Your task to perform on an android device: Search for the best gaming mouse on Best Buy. Image 0: 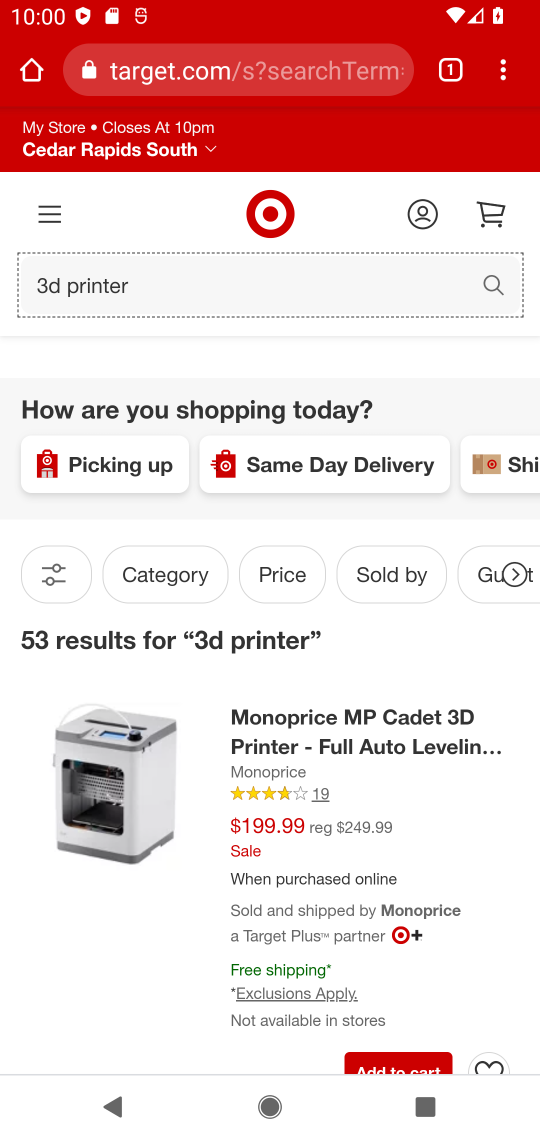
Step 0: press home button
Your task to perform on an android device: Search for the best gaming mouse on Best Buy. Image 1: 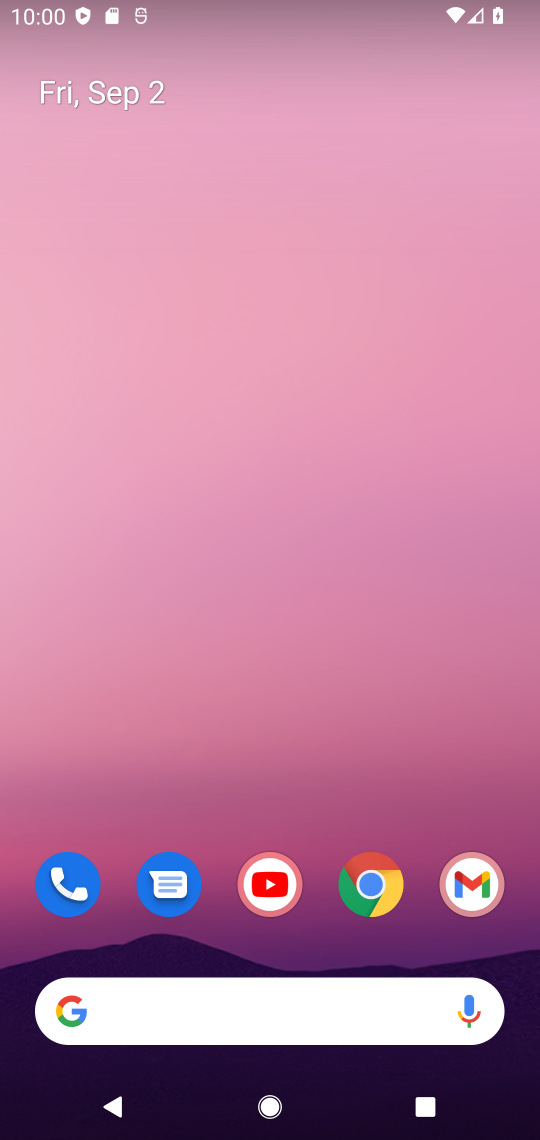
Step 1: click (455, 256)
Your task to perform on an android device: Search for the best gaming mouse on Best Buy. Image 2: 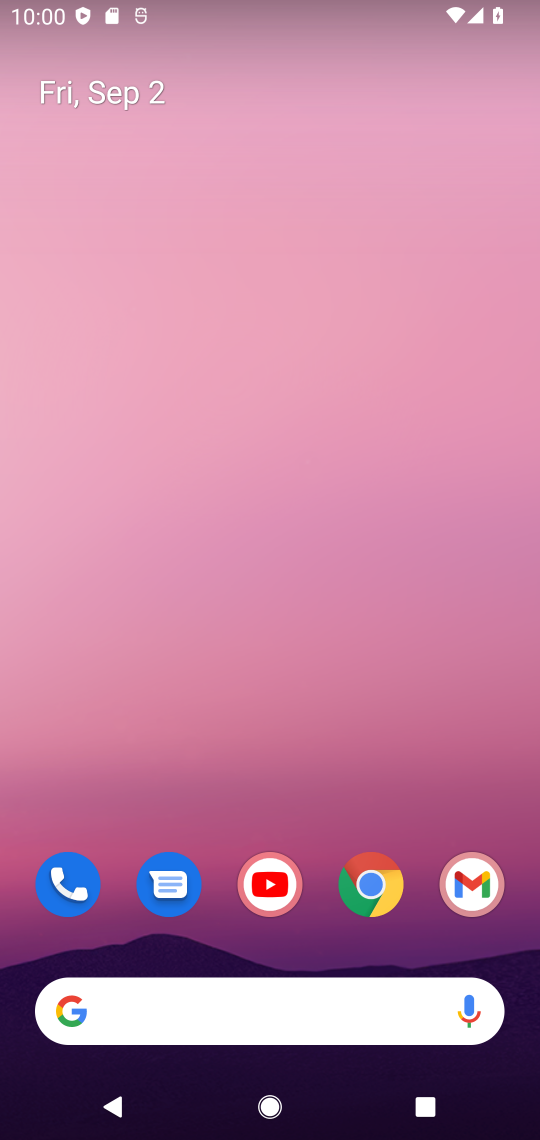
Step 2: drag from (323, 923) to (330, 192)
Your task to perform on an android device: Search for the best gaming mouse on Best Buy. Image 3: 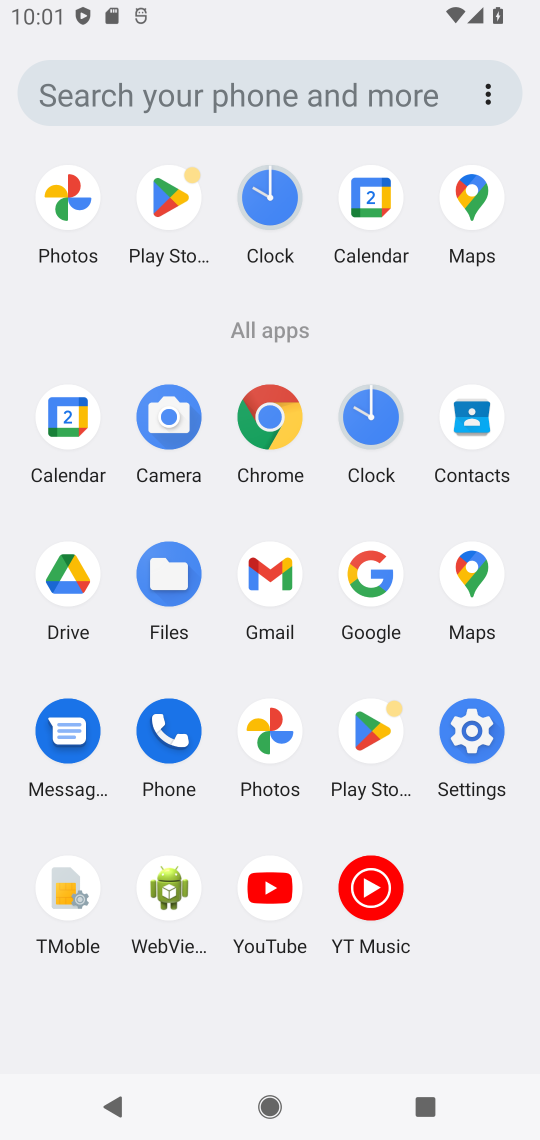
Step 3: drag from (370, 654) to (373, 440)
Your task to perform on an android device: Search for the best gaming mouse on Best Buy. Image 4: 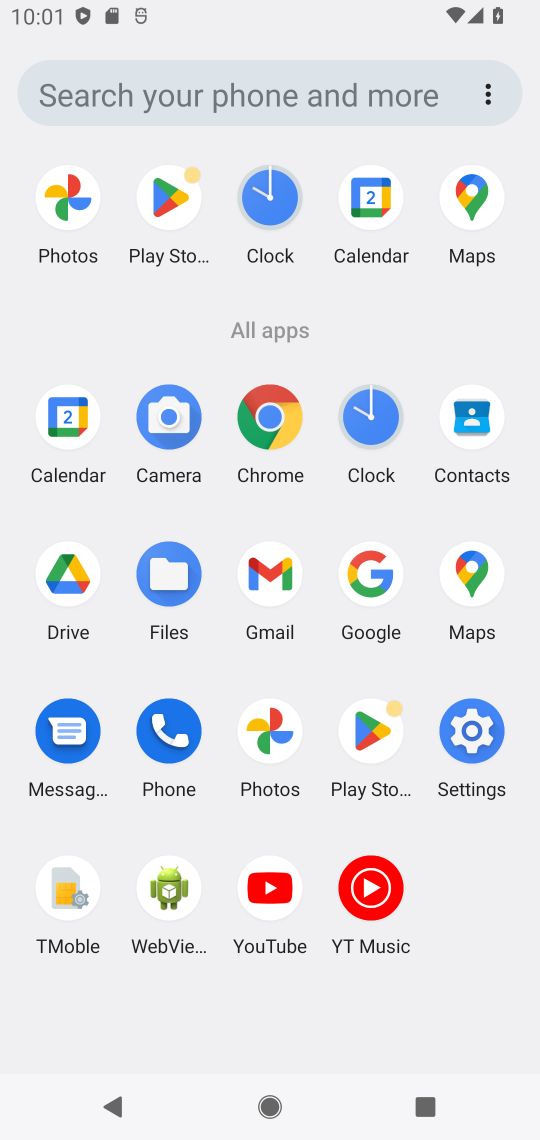
Step 4: click (285, 440)
Your task to perform on an android device: Search for the best gaming mouse on Best Buy. Image 5: 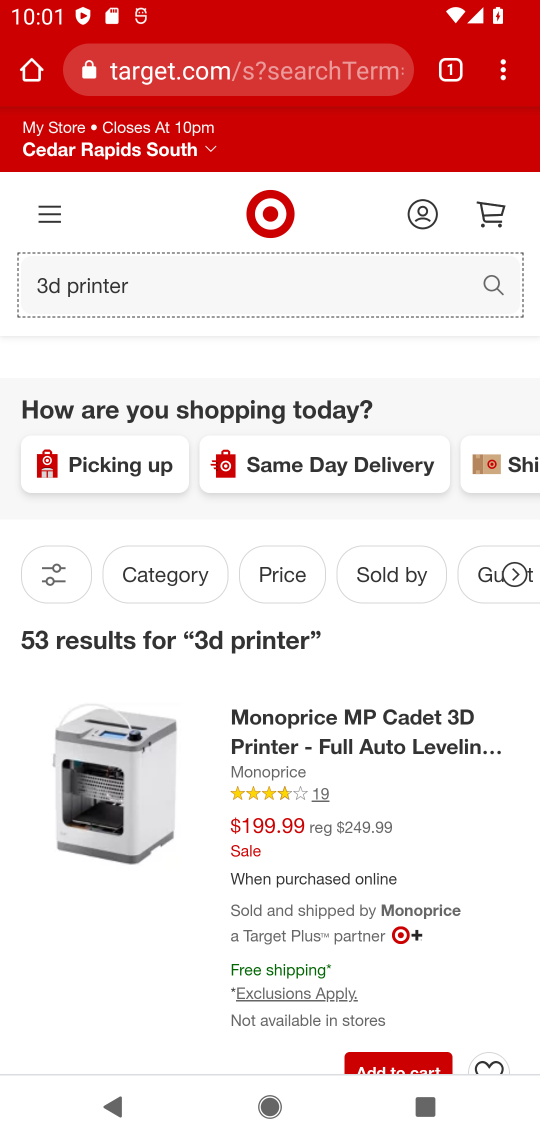
Step 5: click (323, 66)
Your task to perform on an android device: Search for the best gaming mouse on Best Buy. Image 6: 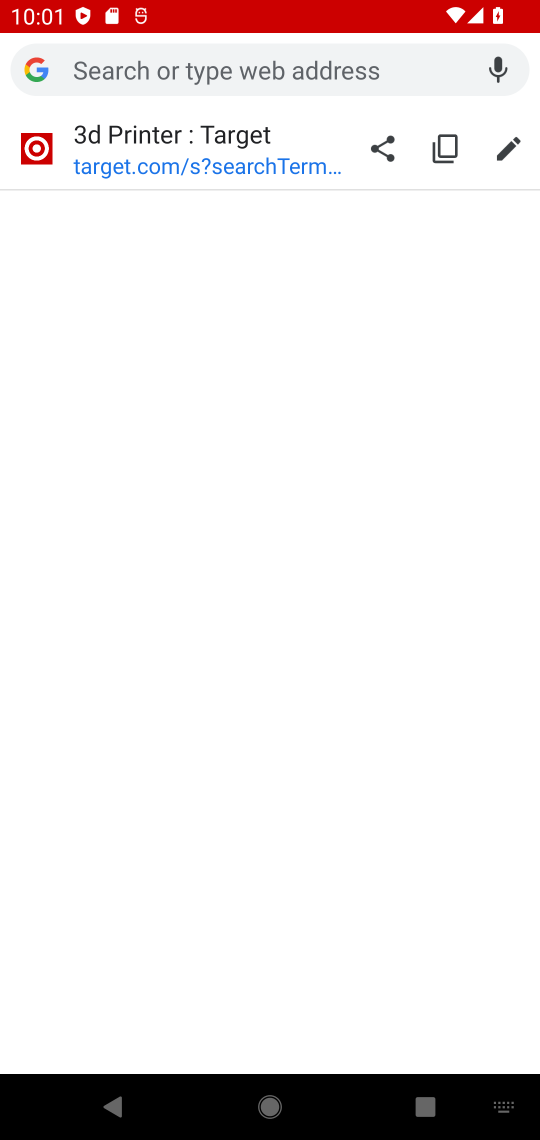
Step 6: type "best buy"
Your task to perform on an android device: Search for the best gaming mouse on Best Buy. Image 7: 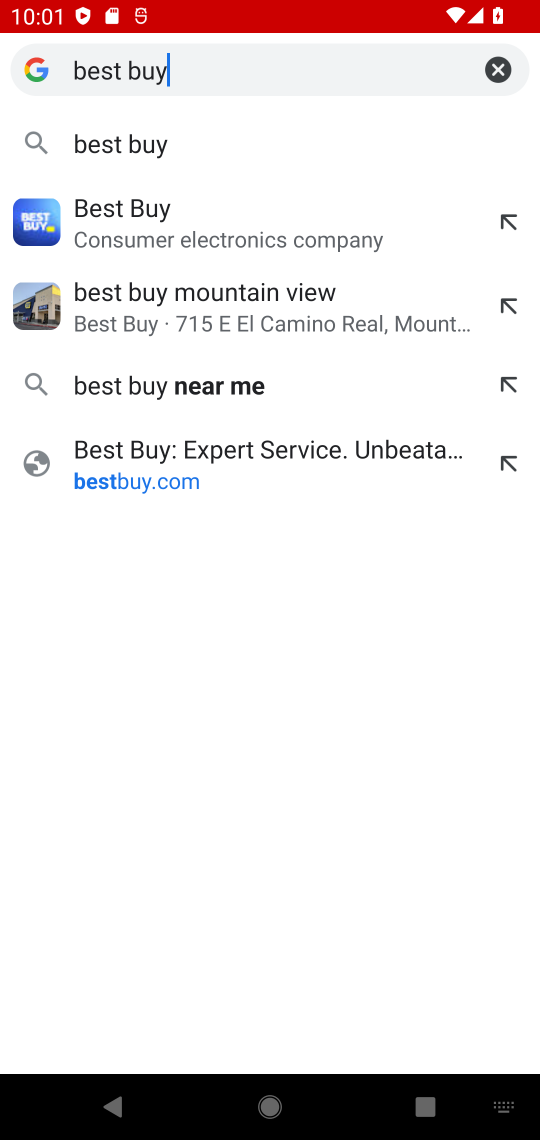
Step 7: click (250, 228)
Your task to perform on an android device: Search for the best gaming mouse on Best Buy. Image 8: 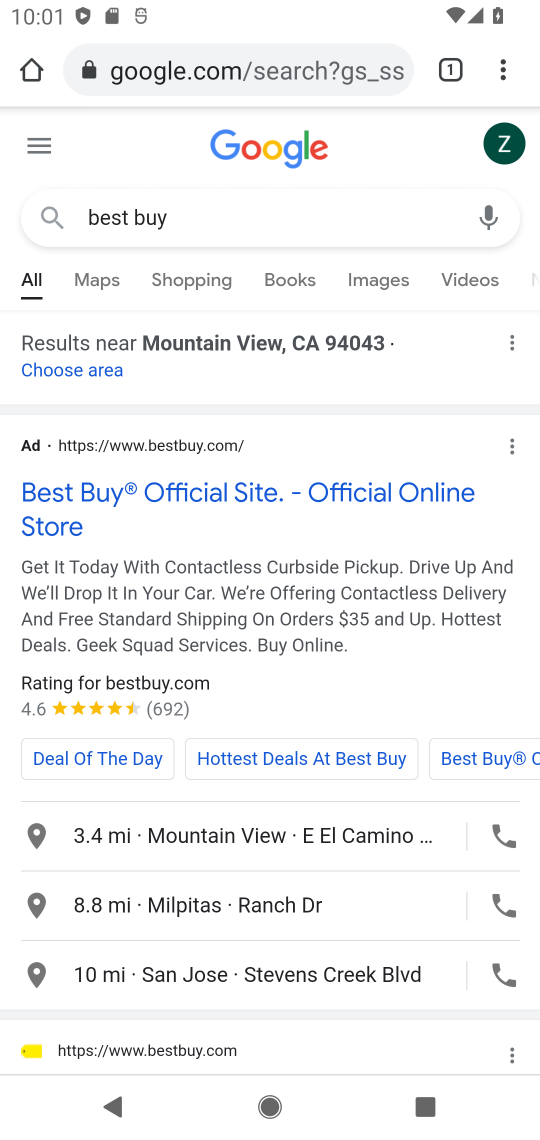
Step 8: drag from (222, 825) to (248, 340)
Your task to perform on an android device: Search for the best gaming mouse on Best Buy. Image 9: 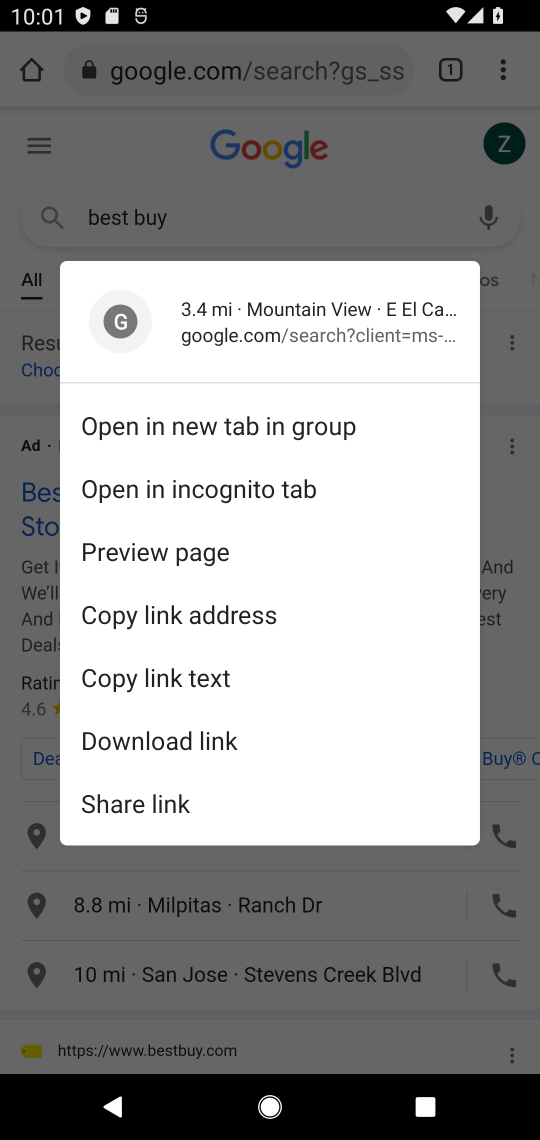
Step 9: click (226, 153)
Your task to perform on an android device: Search for the best gaming mouse on Best Buy. Image 10: 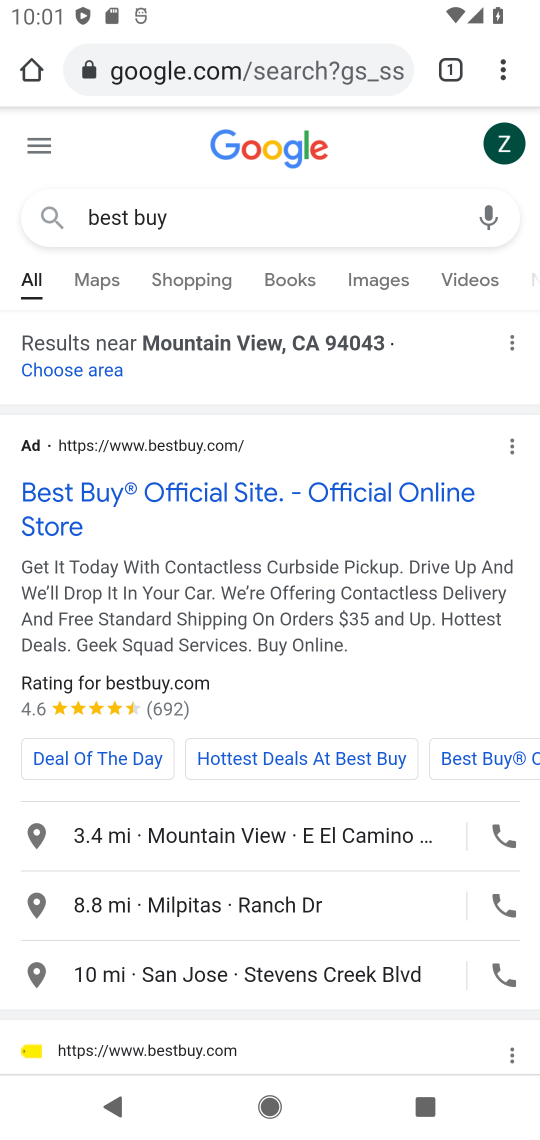
Step 10: drag from (238, 829) to (258, 411)
Your task to perform on an android device: Search for the best gaming mouse on Best Buy. Image 11: 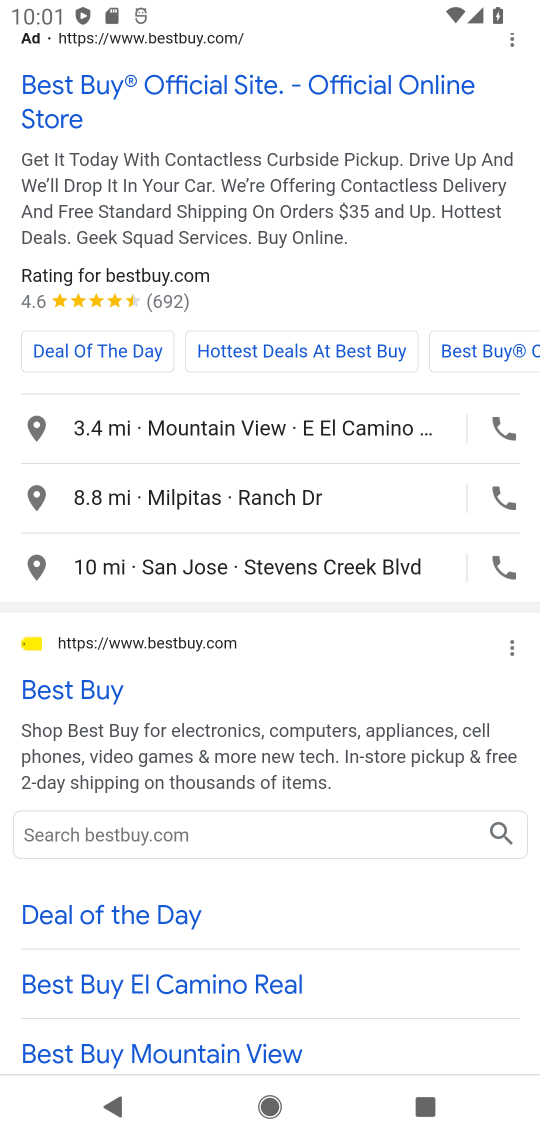
Step 11: click (92, 689)
Your task to perform on an android device: Search for the best gaming mouse on Best Buy. Image 12: 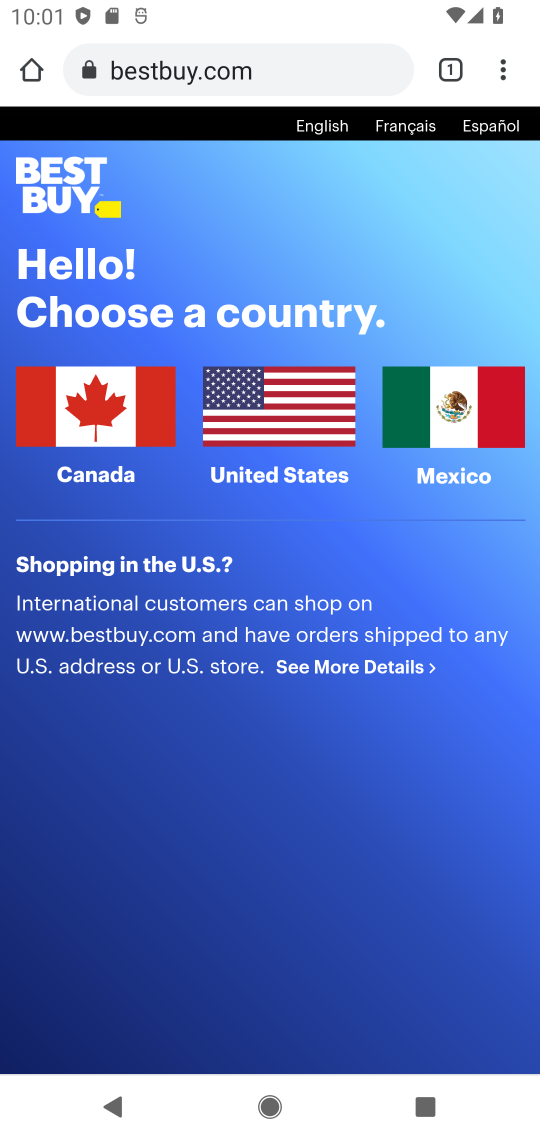
Step 12: drag from (333, 772) to (344, 623)
Your task to perform on an android device: Search for the best gaming mouse on Best Buy. Image 13: 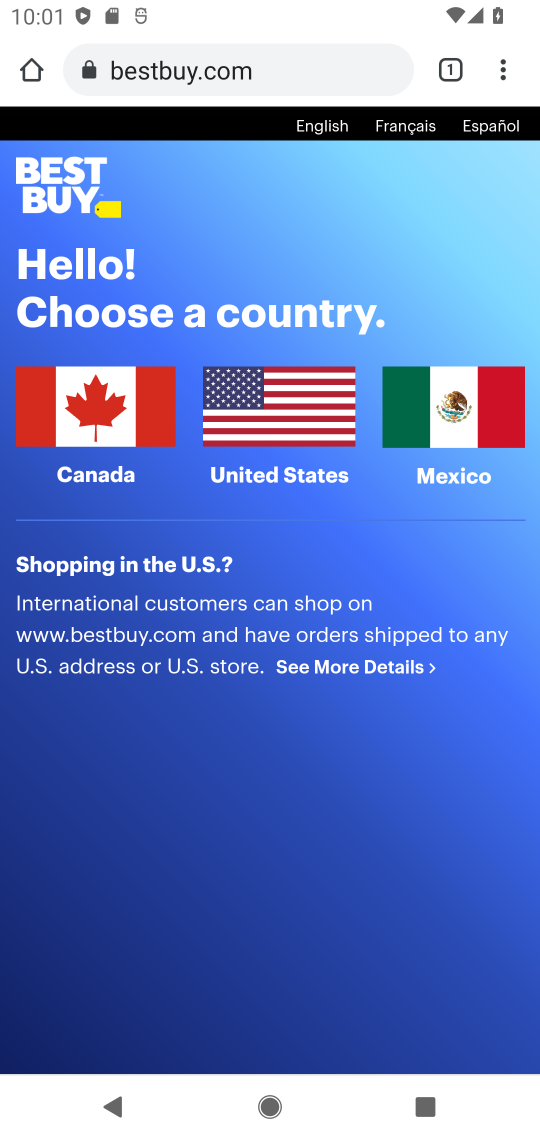
Step 13: click (280, 424)
Your task to perform on an android device: Search for the best gaming mouse on Best Buy. Image 14: 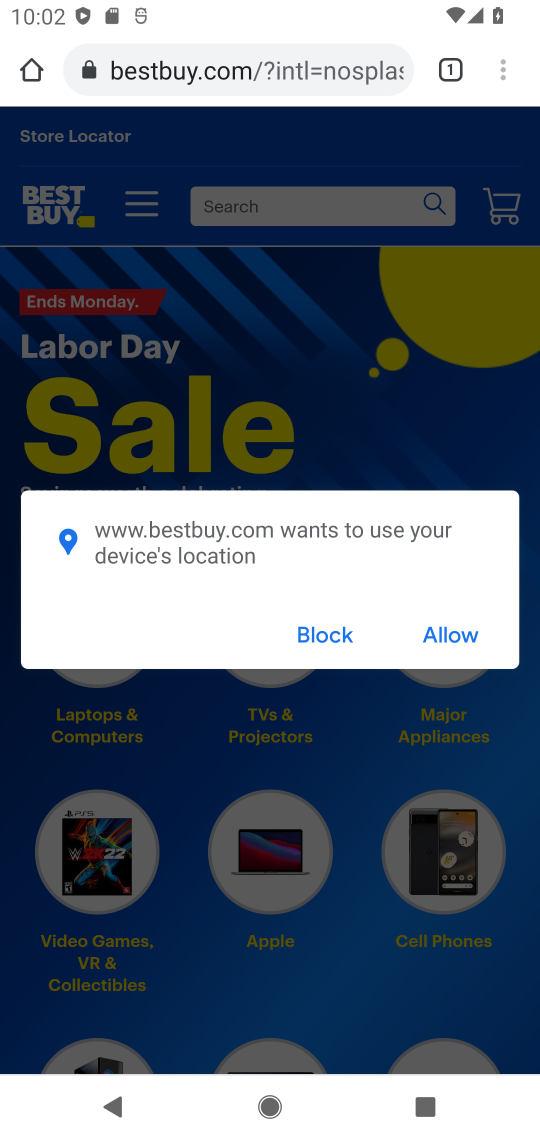
Step 14: click (337, 628)
Your task to perform on an android device: Search for the best gaming mouse on Best Buy. Image 15: 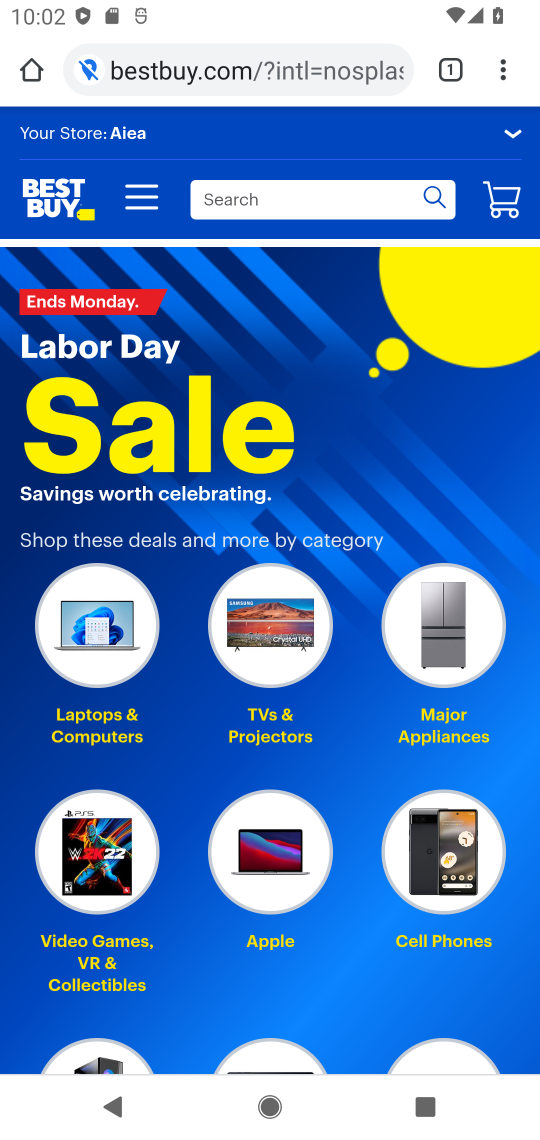
Step 15: click (302, 207)
Your task to perform on an android device: Search for the best gaming mouse on Best Buy. Image 16: 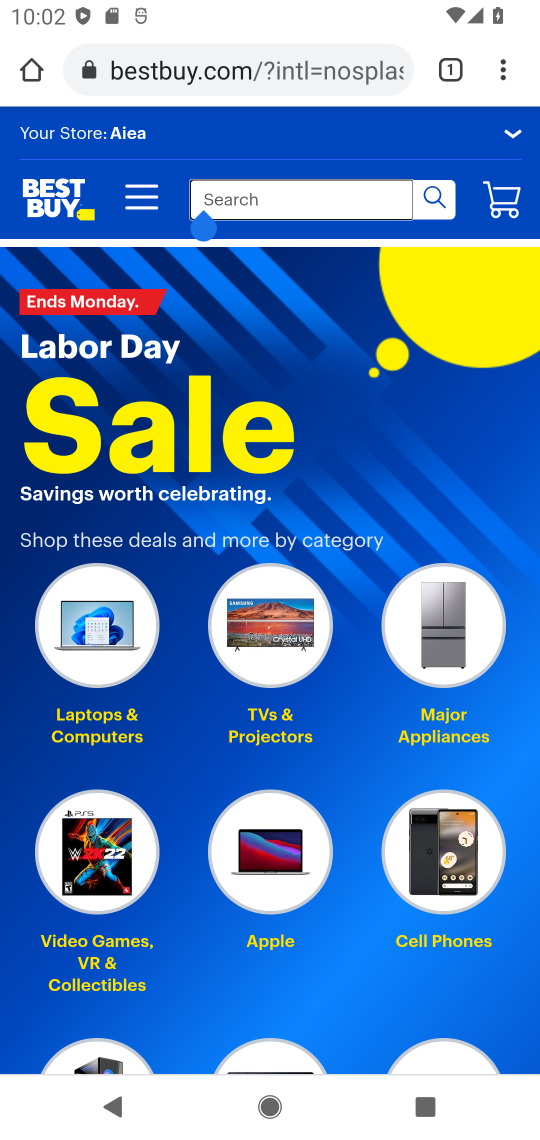
Step 16: type "best gaming mouse"
Your task to perform on an android device: Search for the best gaming mouse on Best Buy. Image 17: 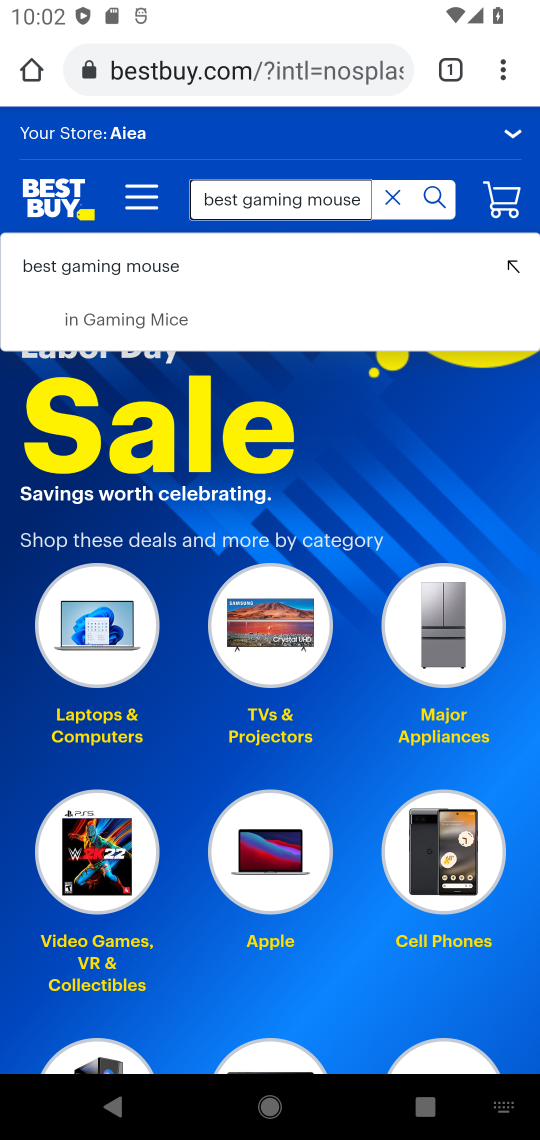
Step 17: click (442, 194)
Your task to perform on an android device: Search for the best gaming mouse on Best Buy. Image 18: 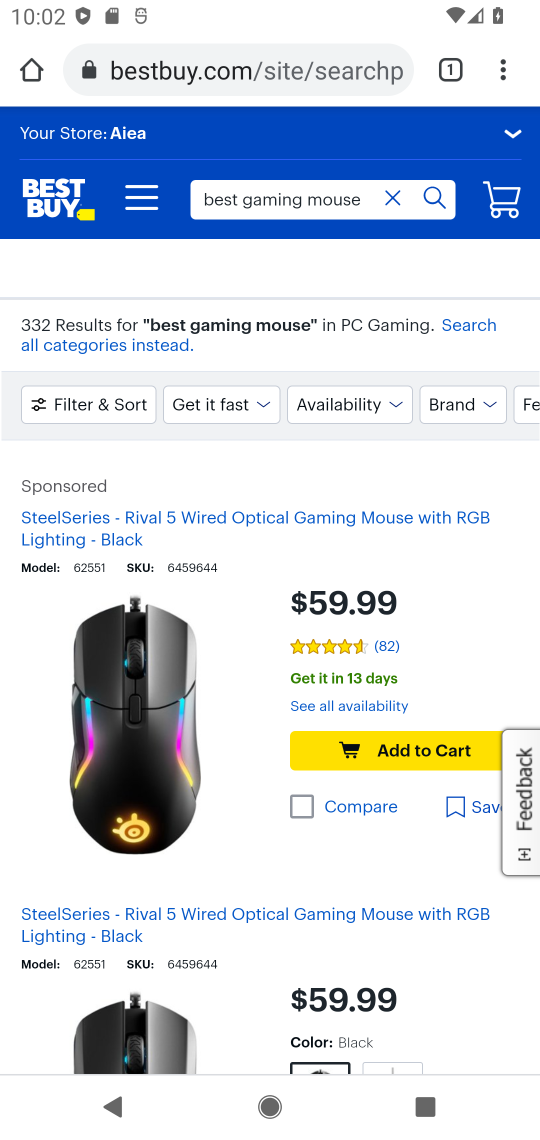
Step 18: task complete